Your task to perform on an android device: What is the recent news? Image 0: 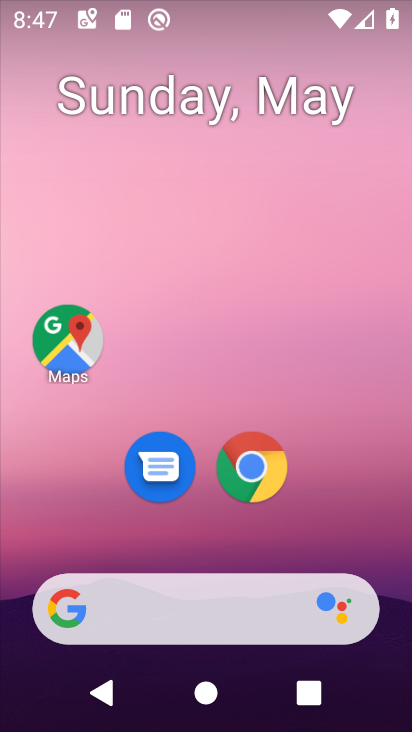
Step 0: drag from (328, 538) to (354, 137)
Your task to perform on an android device: What is the recent news? Image 1: 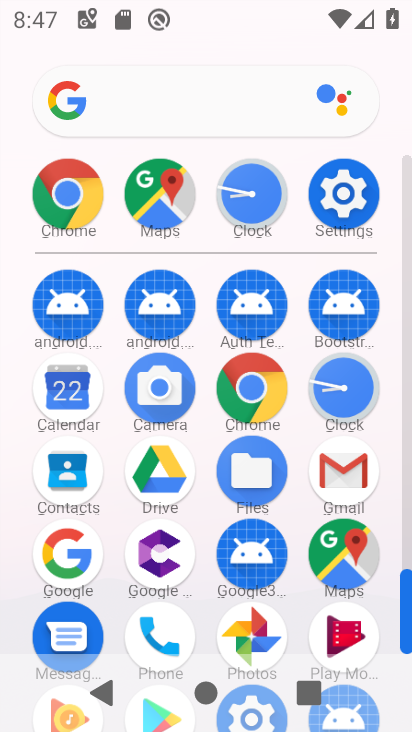
Step 1: click (289, 395)
Your task to perform on an android device: What is the recent news? Image 2: 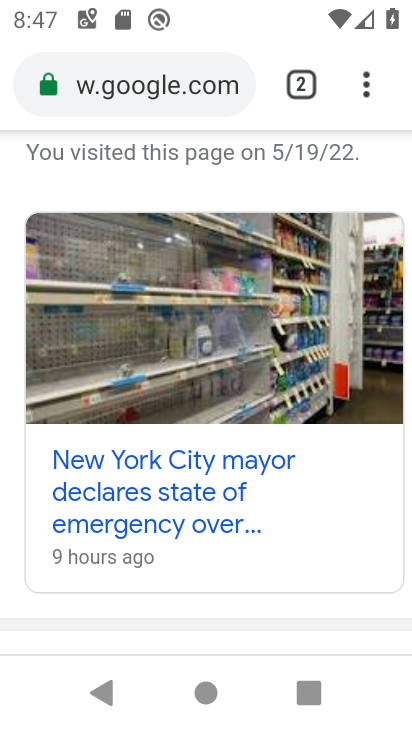
Step 2: click (180, 95)
Your task to perform on an android device: What is the recent news? Image 3: 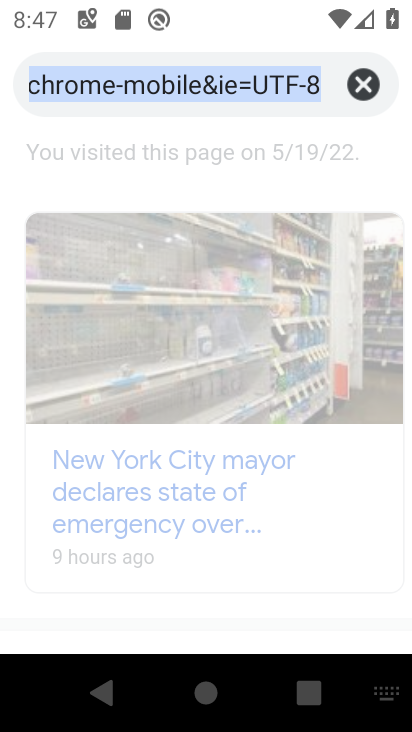
Step 3: click (370, 89)
Your task to perform on an android device: What is the recent news? Image 4: 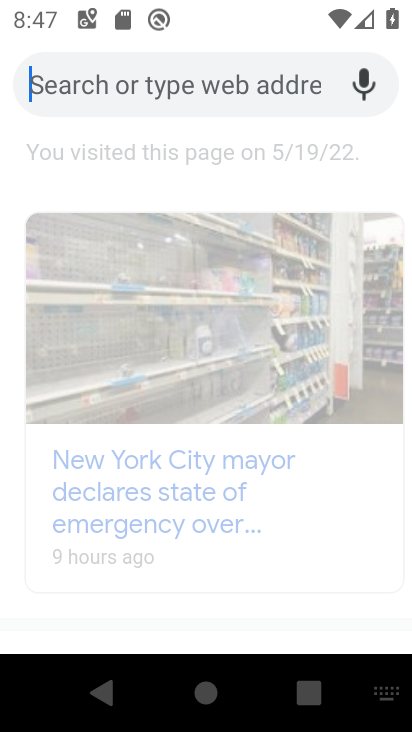
Step 4: click (178, 84)
Your task to perform on an android device: What is the recent news? Image 5: 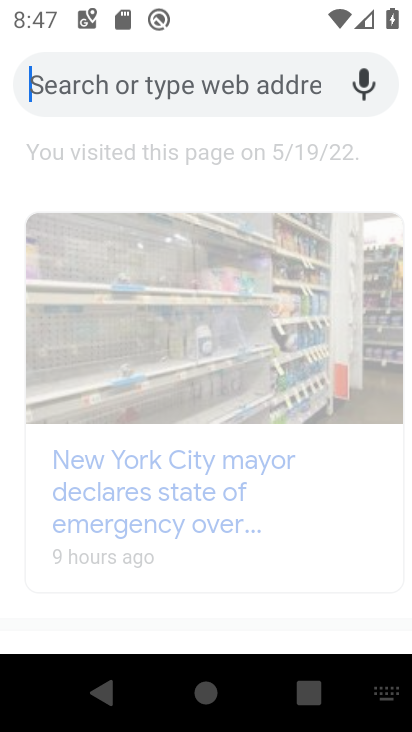
Step 5: type "what is the recent news"
Your task to perform on an android device: What is the recent news? Image 6: 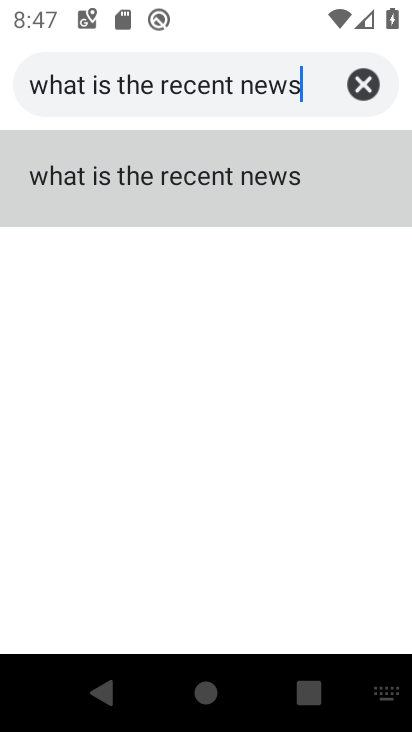
Step 6: click (236, 178)
Your task to perform on an android device: What is the recent news? Image 7: 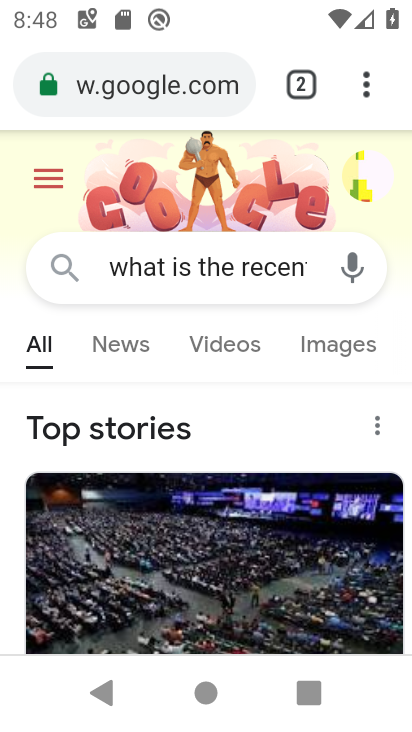
Step 7: task complete